Your task to perform on an android device: add a label to a message in the gmail app Image 0: 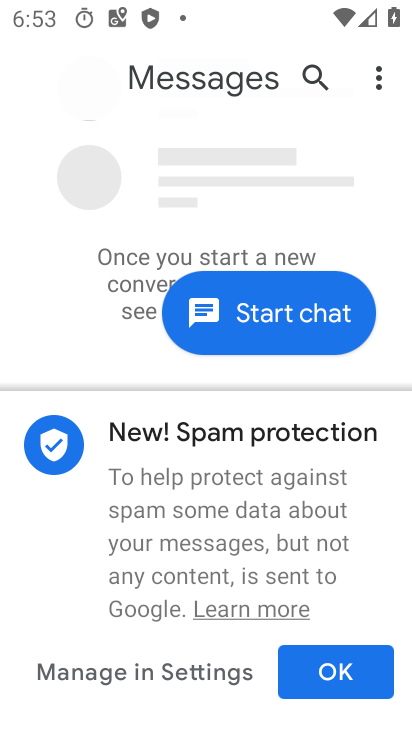
Step 0: press home button
Your task to perform on an android device: add a label to a message in the gmail app Image 1: 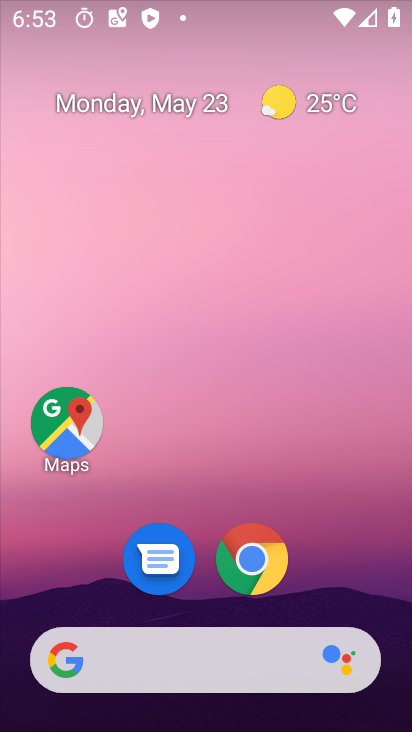
Step 1: drag from (389, 641) to (343, 60)
Your task to perform on an android device: add a label to a message in the gmail app Image 2: 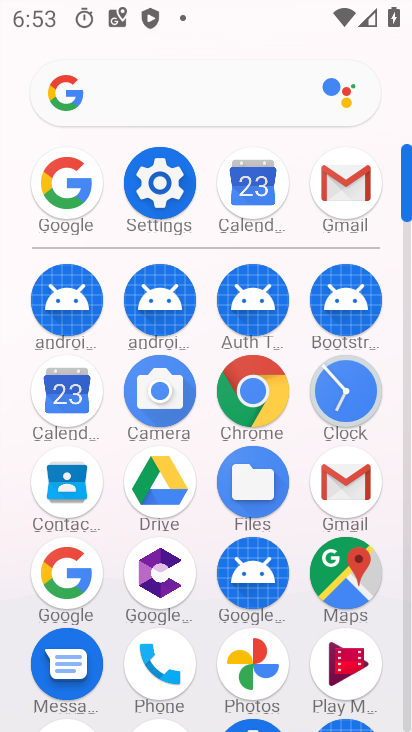
Step 2: click (339, 472)
Your task to perform on an android device: add a label to a message in the gmail app Image 3: 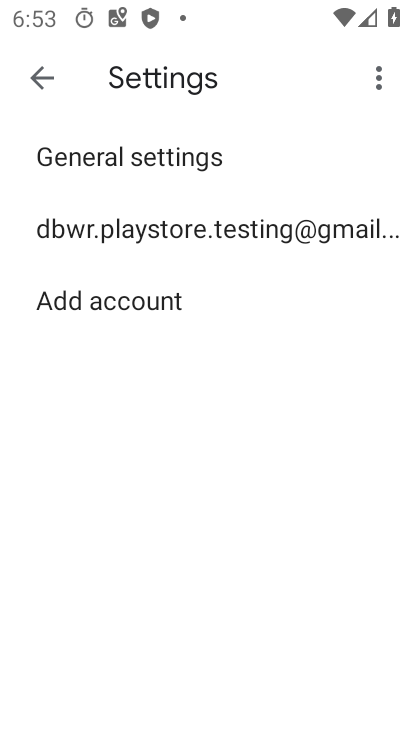
Step 3: task complete